Your task to perform on an android device: Go to notification settings Image 0: 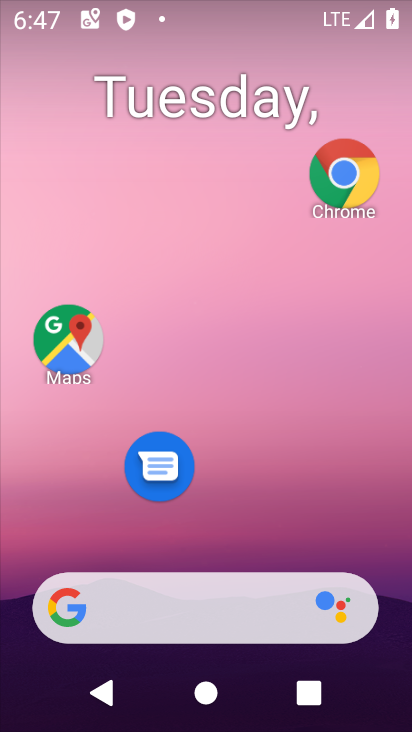
Step 0: drag from (340, 502) to (286, 18)
Your task to perform on an android device: Go to notification settings Image 1: 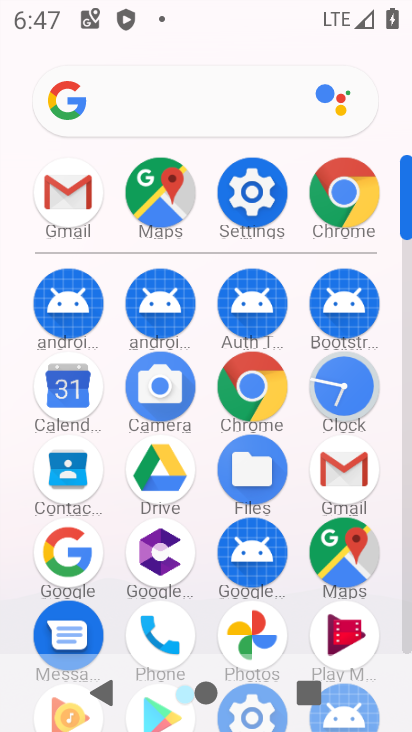
Step 1: click (269, 212)
Your task to perform on an android device: Go to notification settings Image 2: 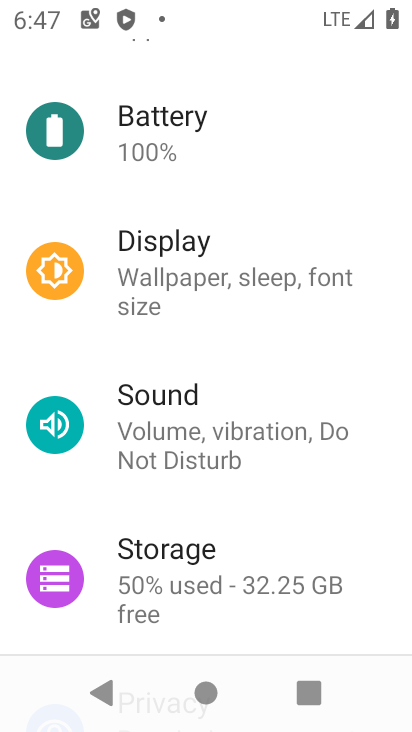
Step 2: drag from (288, 106) to (239, 654)
Your task to perform on an android device: Go to notification settings Image 3: 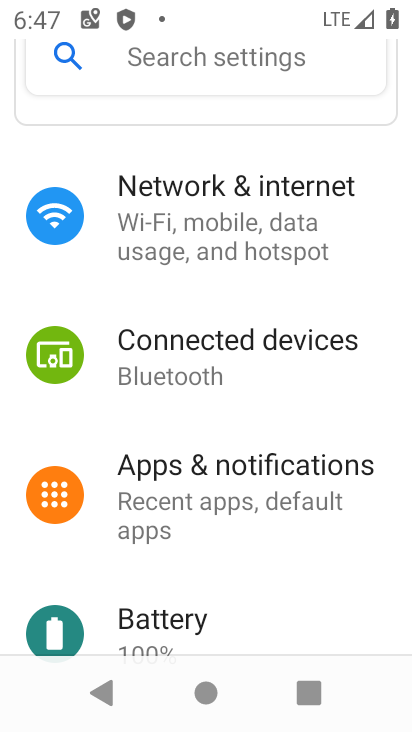
Step 3: click (215, 474)
Your task to perform on an android device: Go to notification settings Image 4: 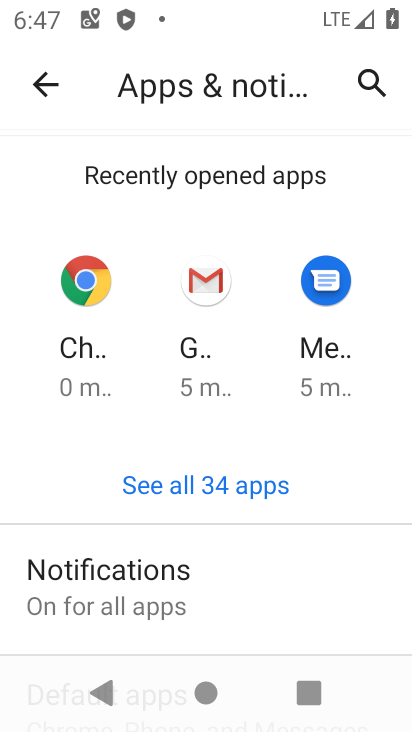
Step 4: task complete